Your task to perform on an android device: search for starred emails in the gmail app Image 0: 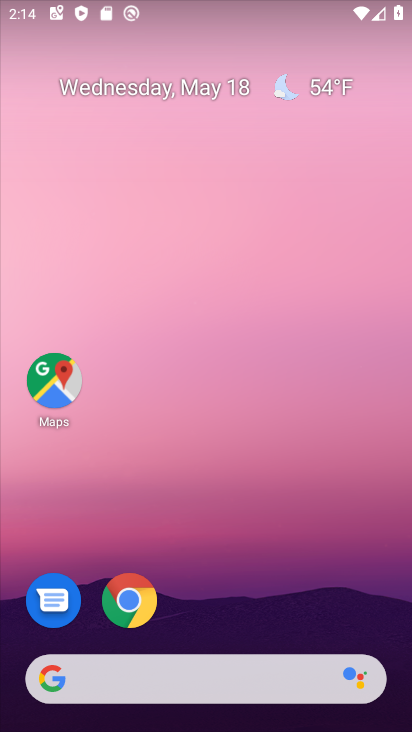
Step 0: drag from (185, 603) to (216, 84)
Your task to perform on an android device: search for starred emails in the gmail app Image 1: 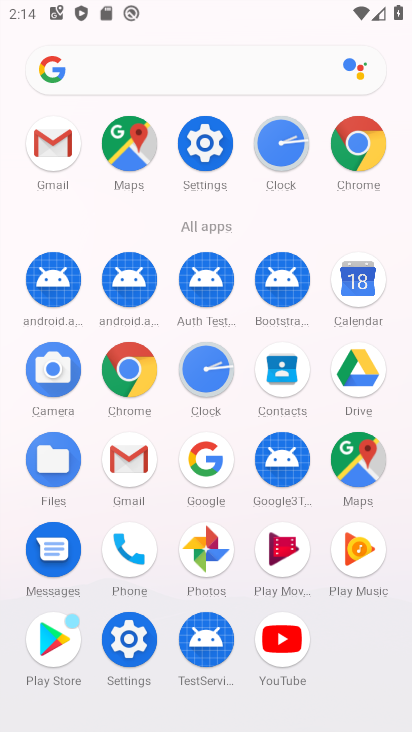
Step 1: click (55, 141)
Your task to perform on an android device: search for starred emails in the gmail app Image 2: 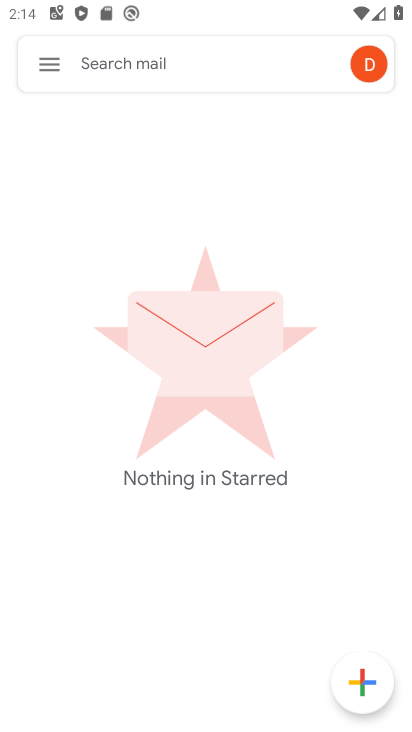
Step 2: task complete